Your task to perform on an android device: turn on priority inbox in the gmail app Image 0: 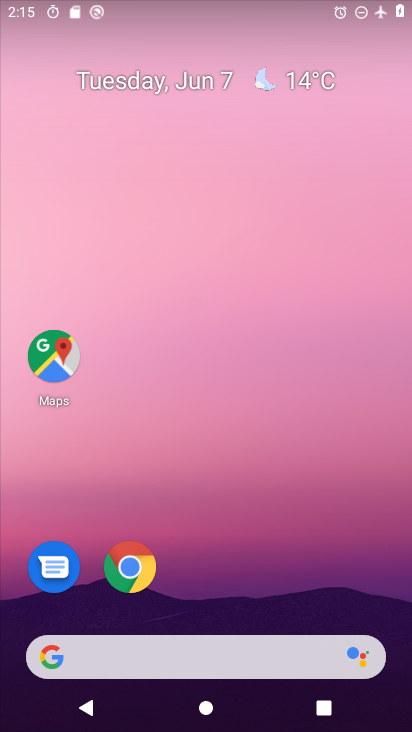
Step 0: drag from (284, 581) to (332, 2)
Your task to perform on an android device: turn on priority inbox in the gmail app Image 1: 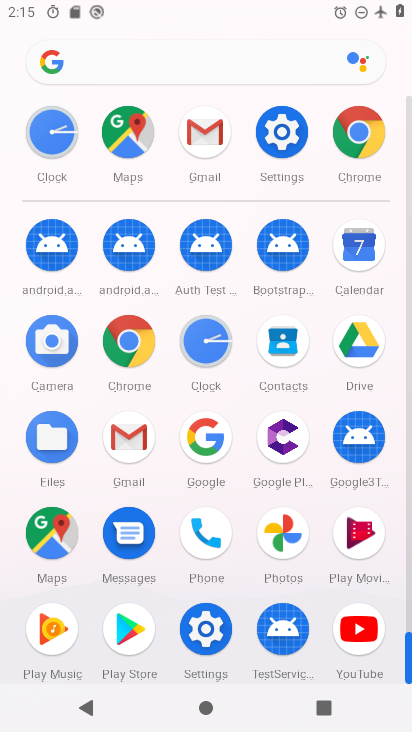
Step 1: click (220, 144)
Your task to perform on an android device: turn on priority inbox in the gmail app Image 2: 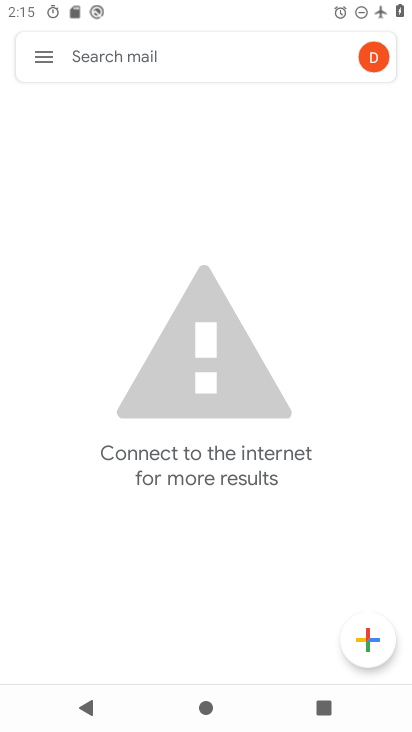
Step 2: click (26, 71)
Your task to perform on an android device: turn on priority inbox in the gmail app Image 3: 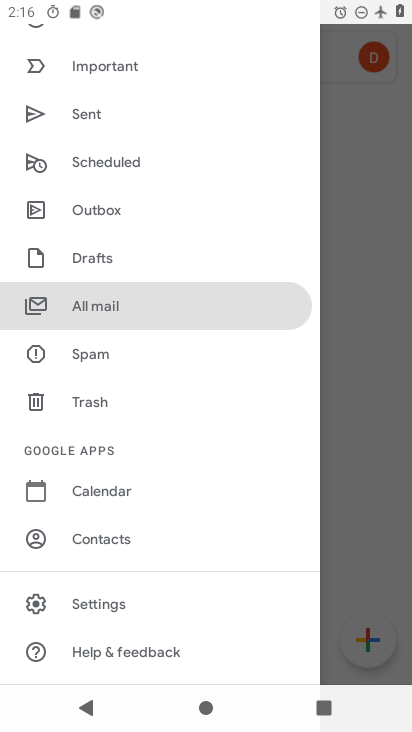
Step 3: click (104, 608)
Your task to perform on an android device: turn on priority inbox in the gmail app Image 4: 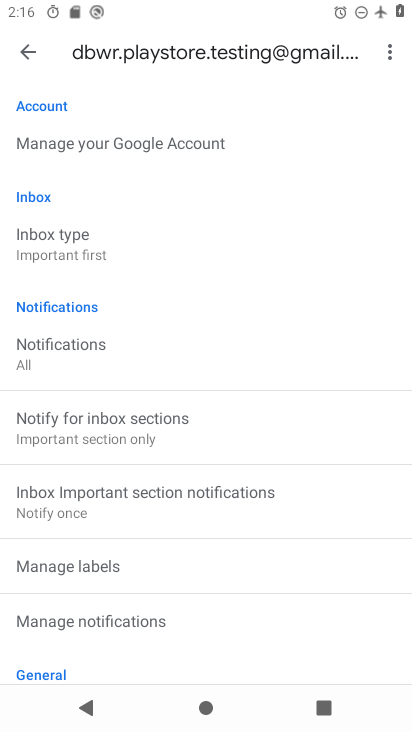
Step 4: click (48, 256)
Your task to perform on an android device: turn on priority inbox in the gmail app Image 5: 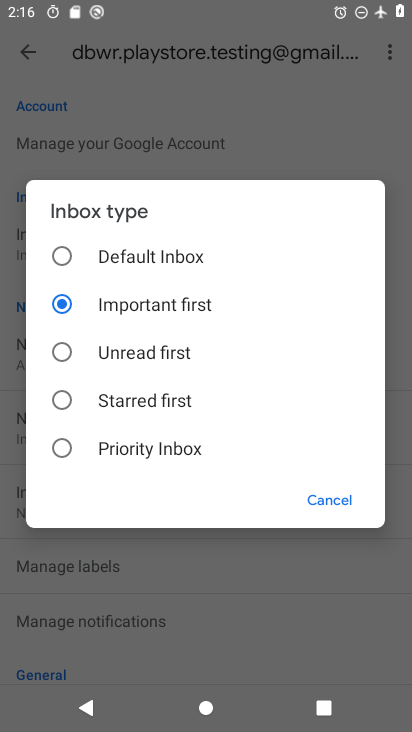
Step 5: click (134, 458)
Your task to perform on an android device: turn on priority inbox in the gmail app Image 6: 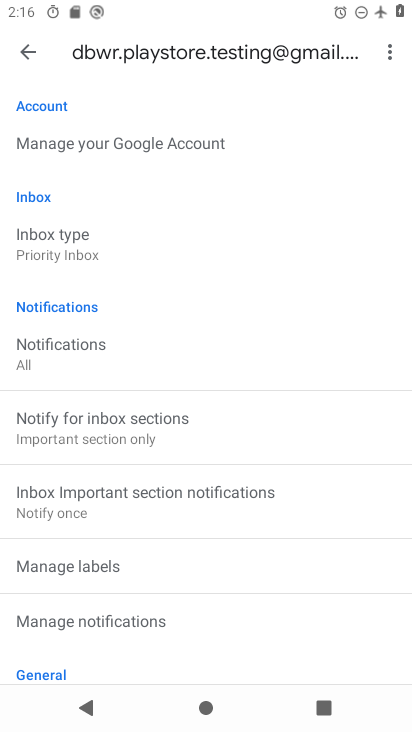
Step 6: task complete